Your task to perform on an android device: set the stopwatch Image 0: 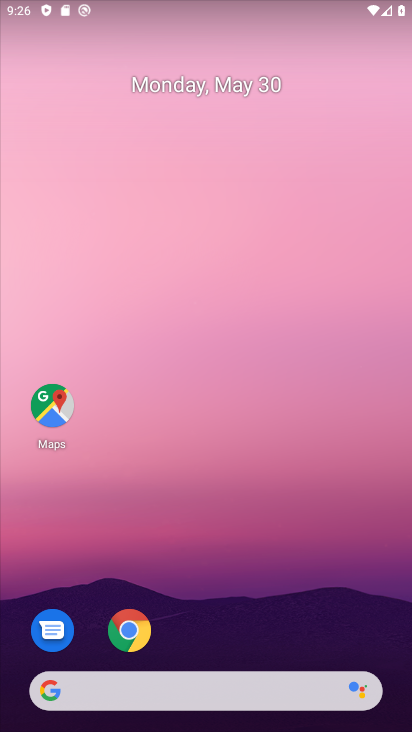
Step 0: drag from (323, 618) to (362, 68)
Your task to perform on an android device: set the stopwatch Image 1: 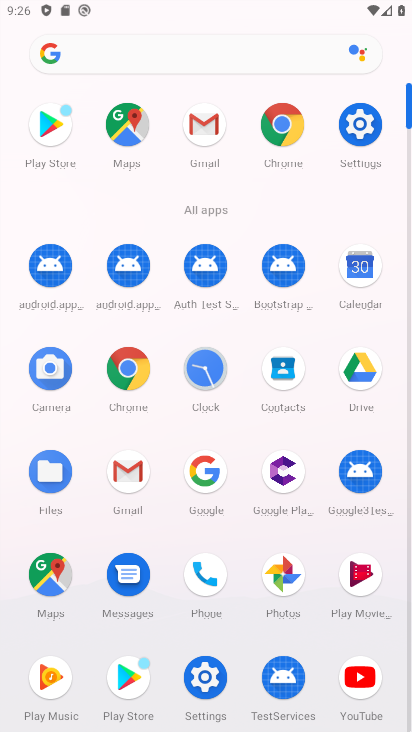
Step 1: click (190, 366)
Your task to perform on an android device: set the stopwatch Image 2: 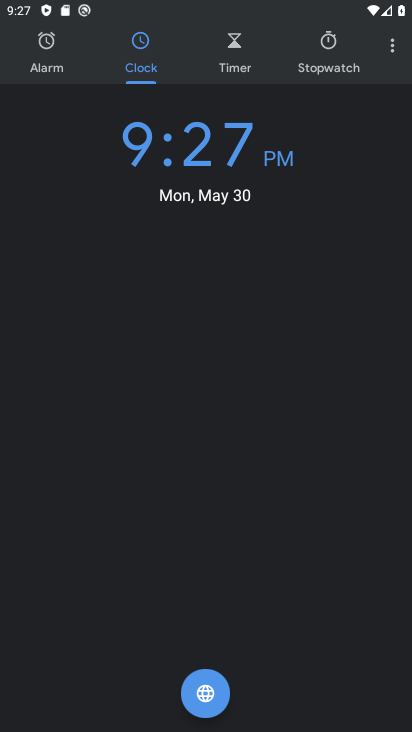
Step 2: click (335, 55)
Your task to perform on an android device: set the stopwatch Image 3: 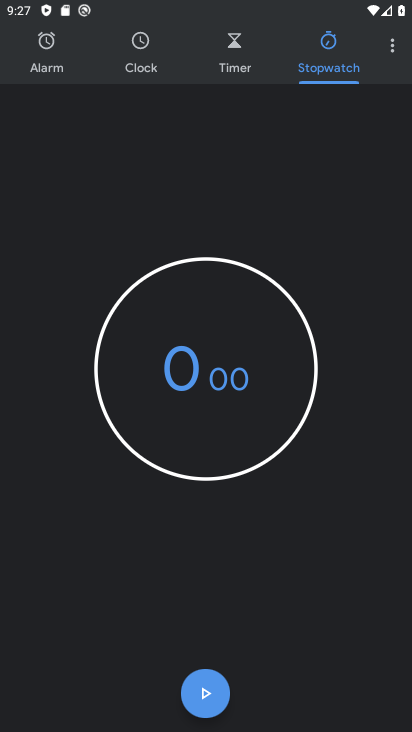
Step 3: task complete